Your task to perform on an android device: Go to Yahoo.com Image 0: 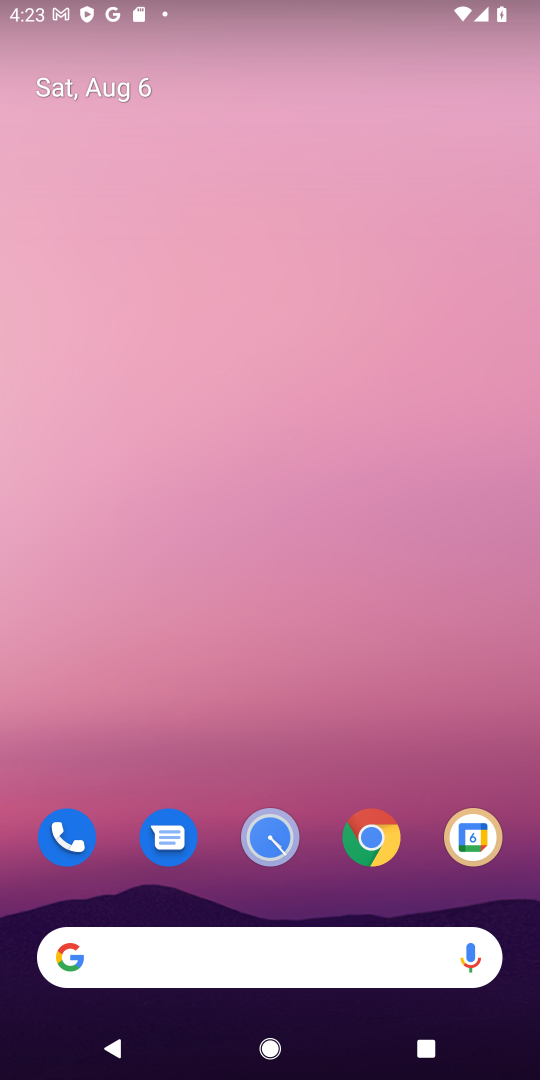
Step 0: click (373, 836)
Your task to perform on an android device: Go to Yahoo.com Image 1: 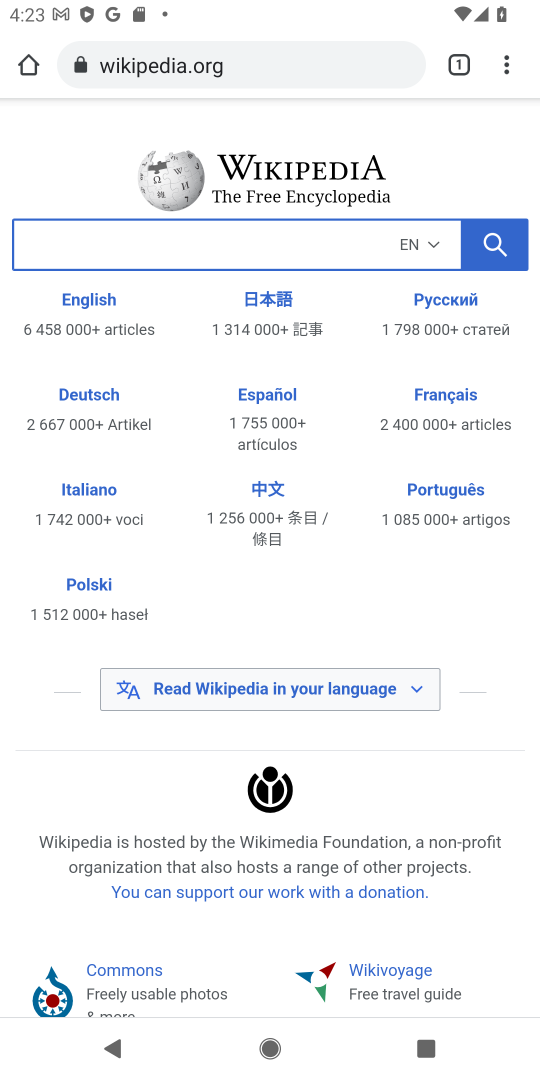
Step 1: click (274, 55)
Your task to perform on an android device: Go to Yahoo.com Image 2: 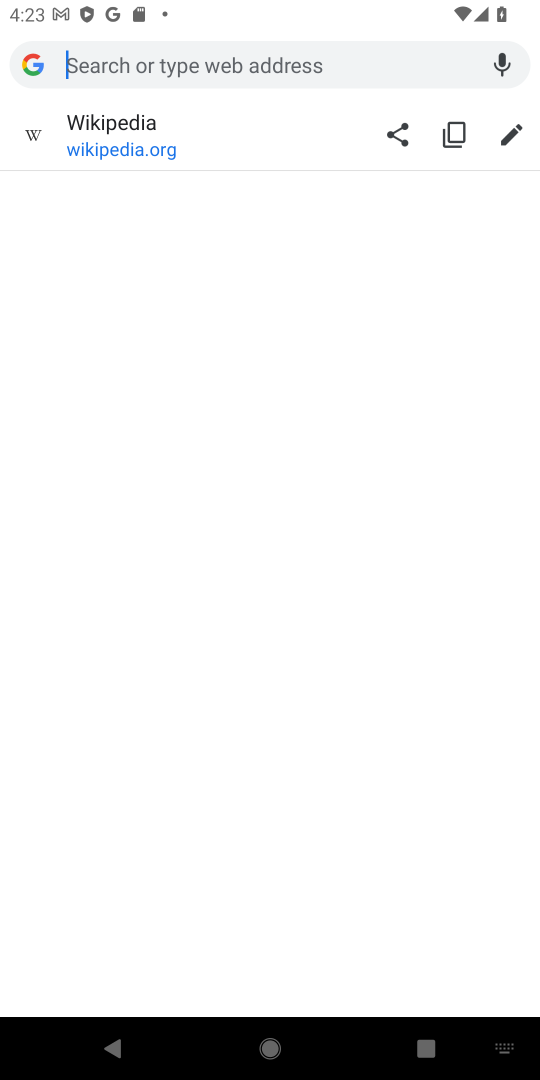
Step 2: type "yahoo.com"
Your task to perform on an android device: Go to Yahoo.com Image 3: 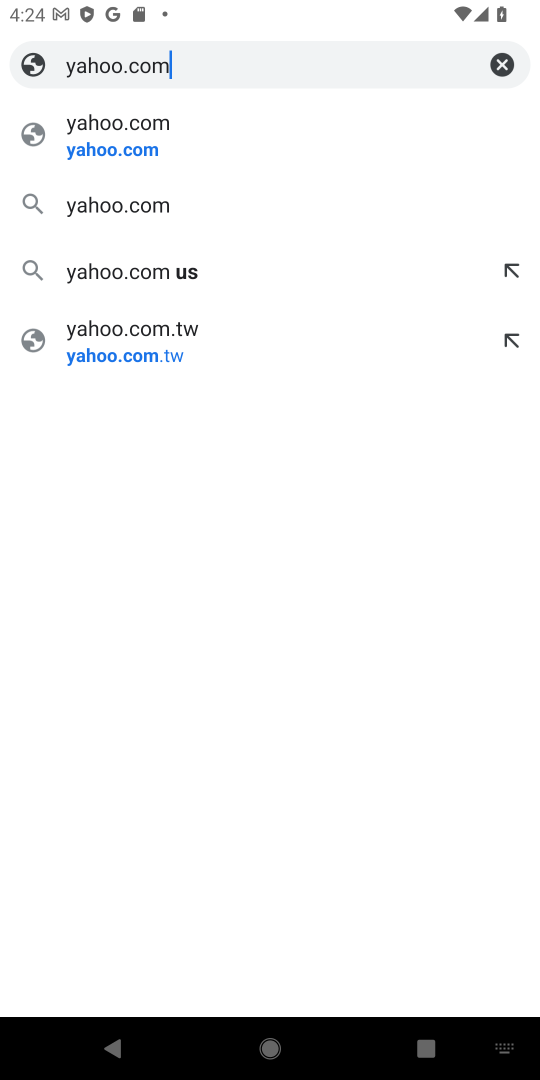
Step 3: click (139, 131)
Your task to perform on an android device: Go to Yahoo.com Image 4: 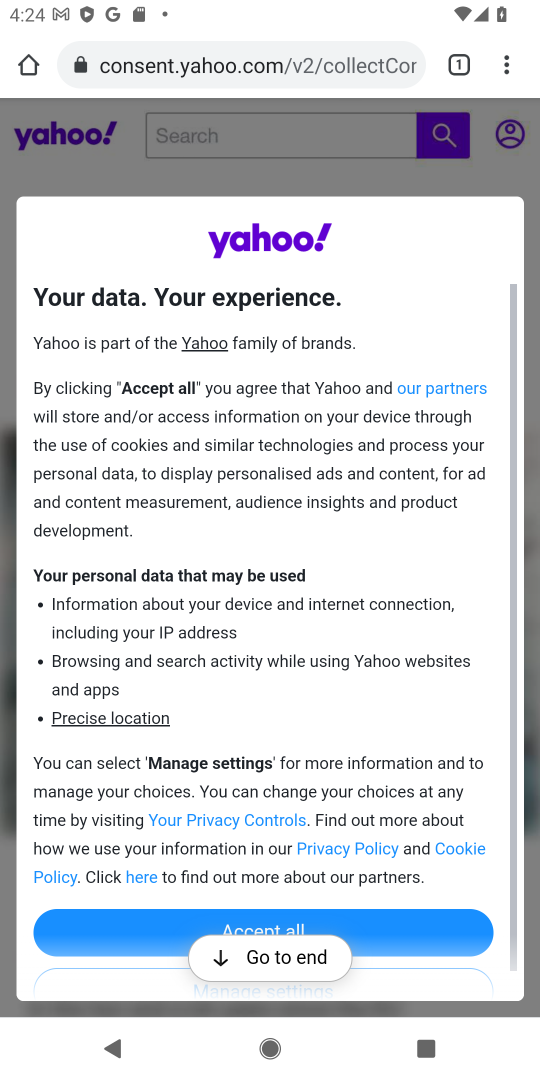
Step 4: click (262, 952)
Your task to perform on an android device: Go to Yahoo.com Image 5: 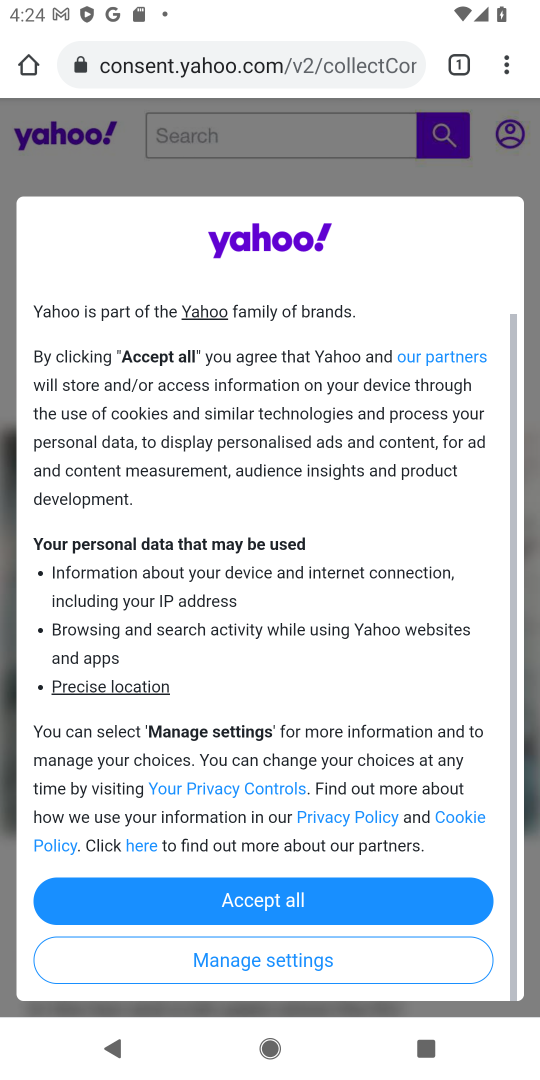
Step 5: click (259, 896)
Your task to perform on an android device: Go to Yahoo.com Image 6: 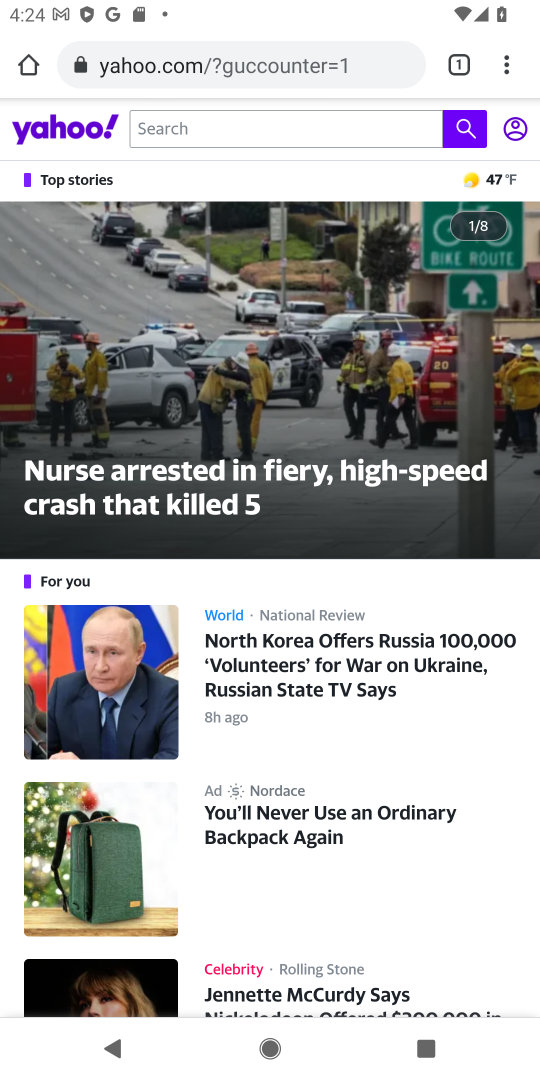
Step 6: task complete